Your task to perform on an android device: install app "Indeed Job Search" Image 0: 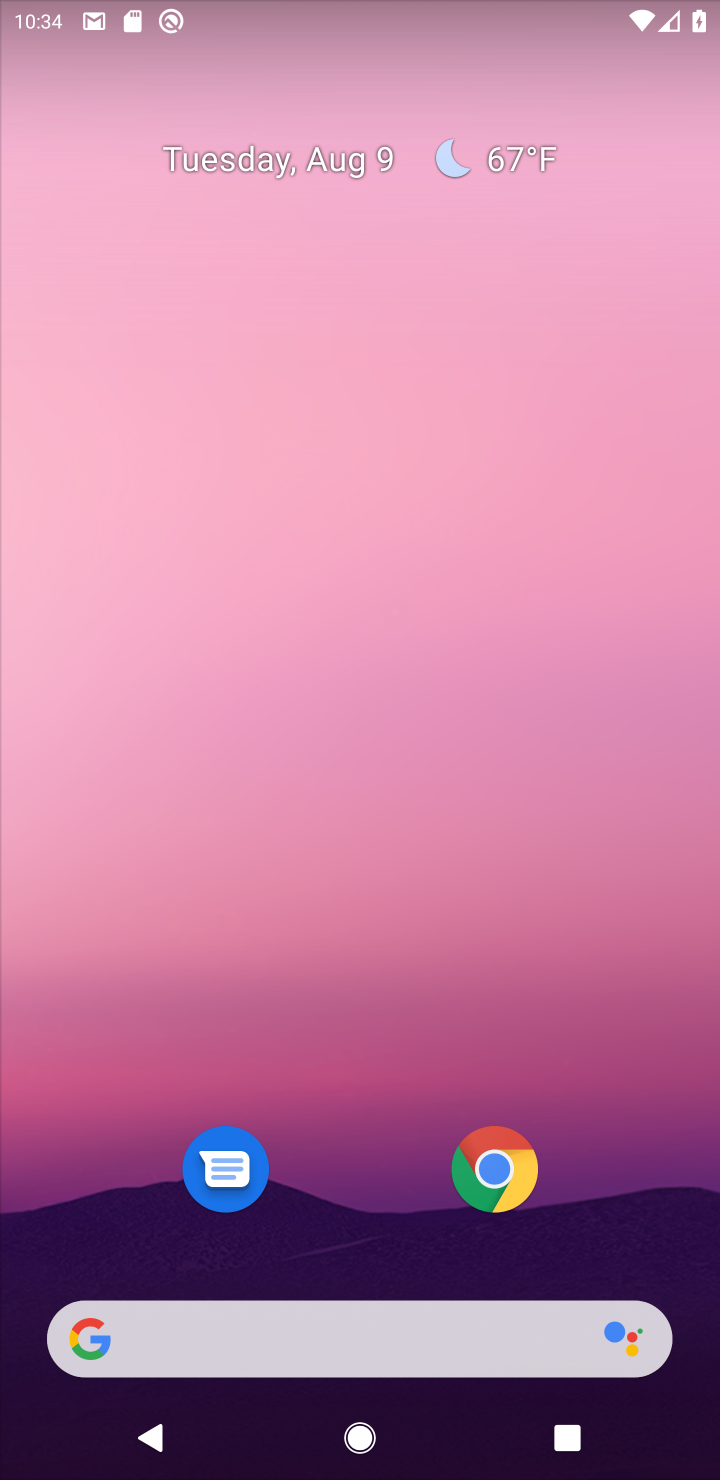
Step 0: press home button
Your task to perform on an android device: install app "Indeed Job Search" Image 1: 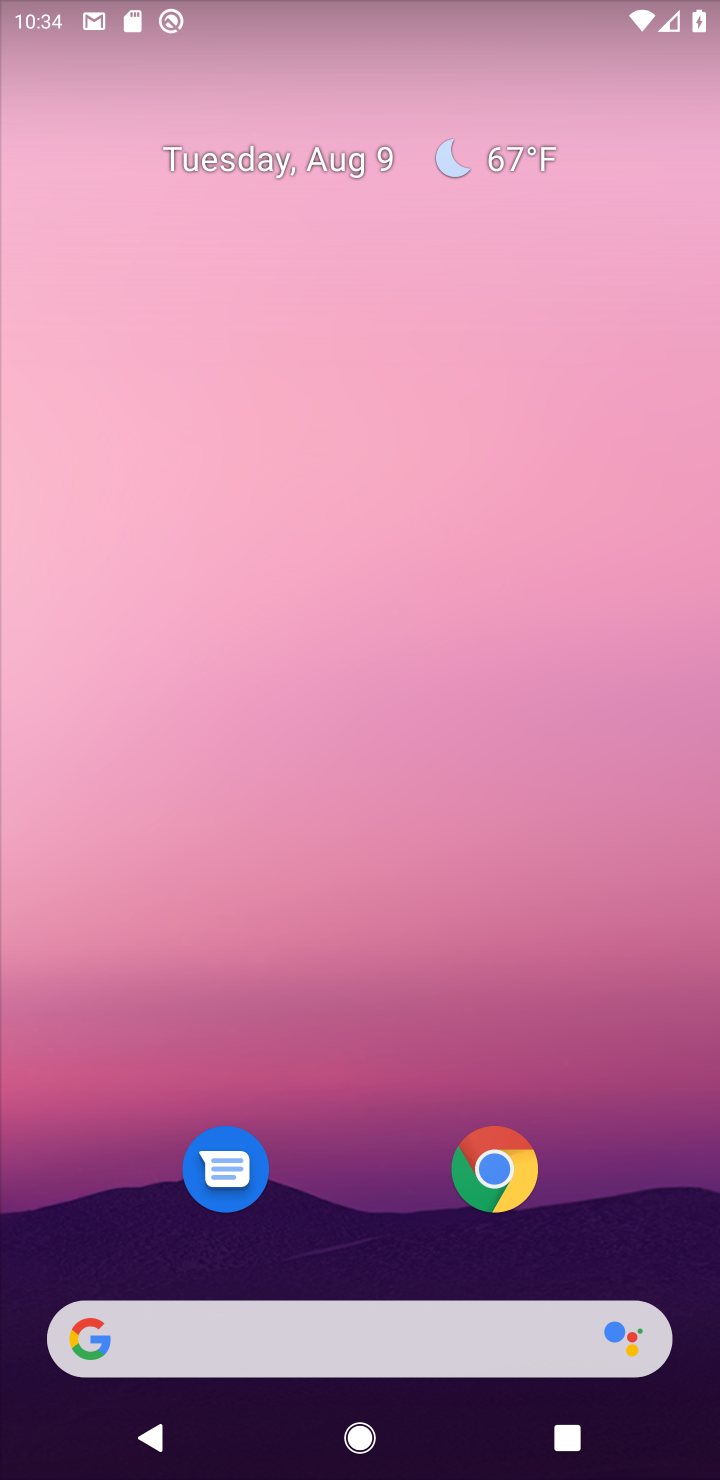
Step 1: drag from (649, 1048) to (669, 88)
Your task to perform on an android device: install app "Indeed Job Search" Image 2: 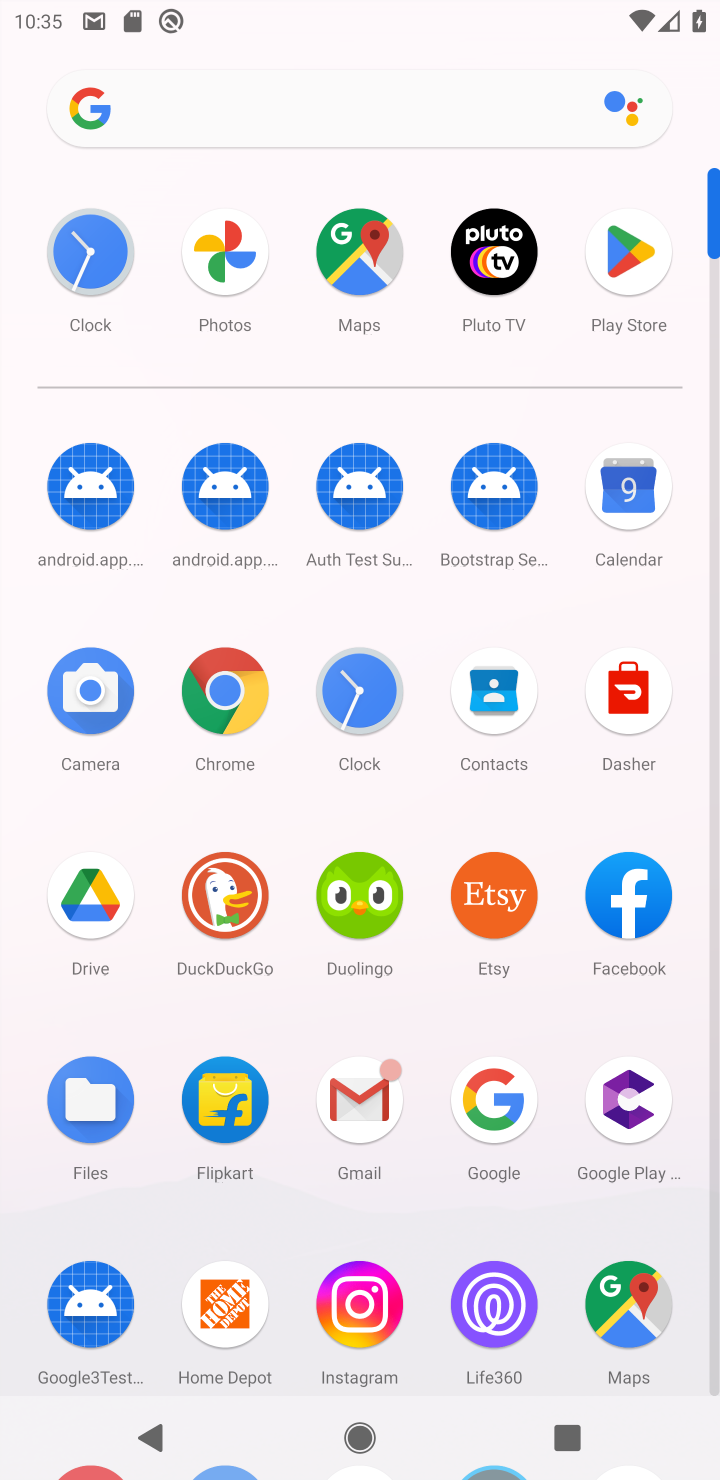
Step 2: click (632, 252)
Your task to perform on an android device: install app "Indeed Job Search" Image 3: 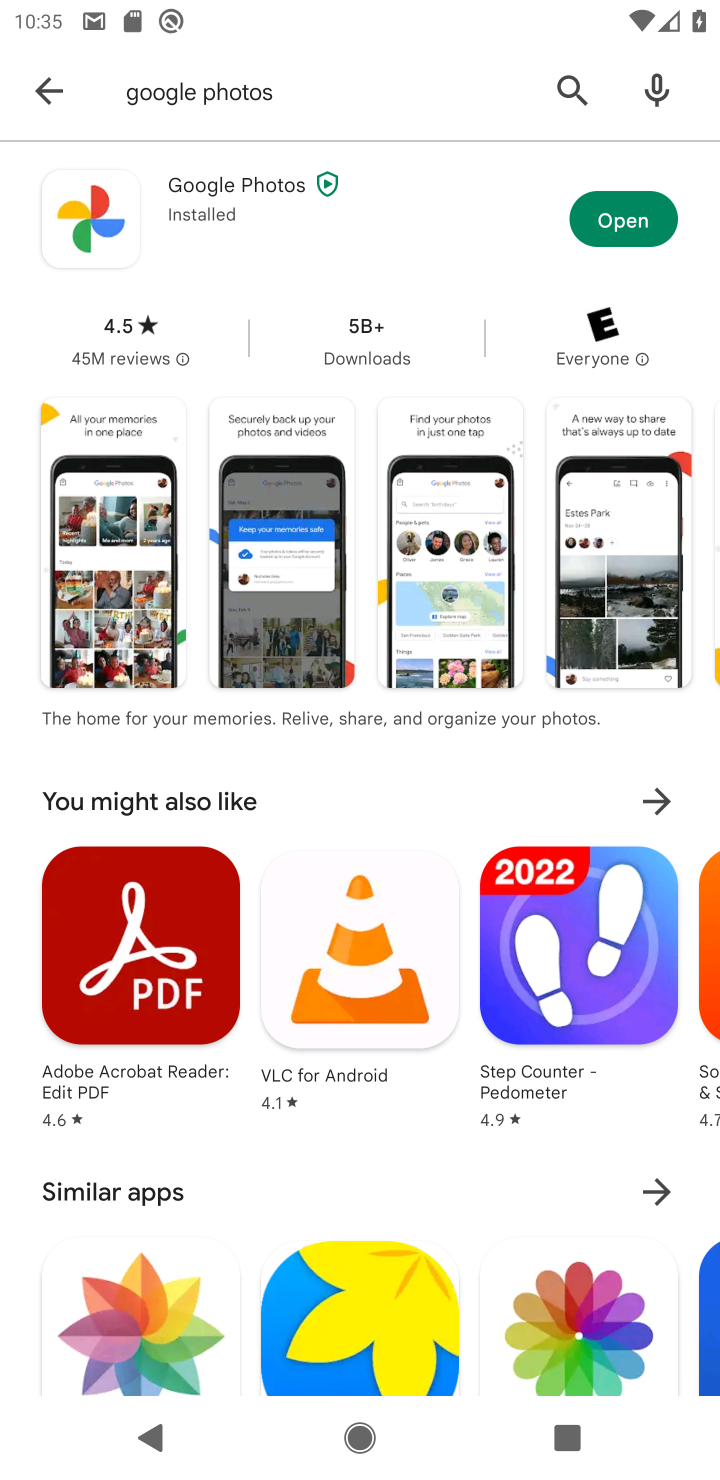
Step 3: click (576, 78)
Your task to perform on an android device: install app "Indeed Job Search" Image 4: 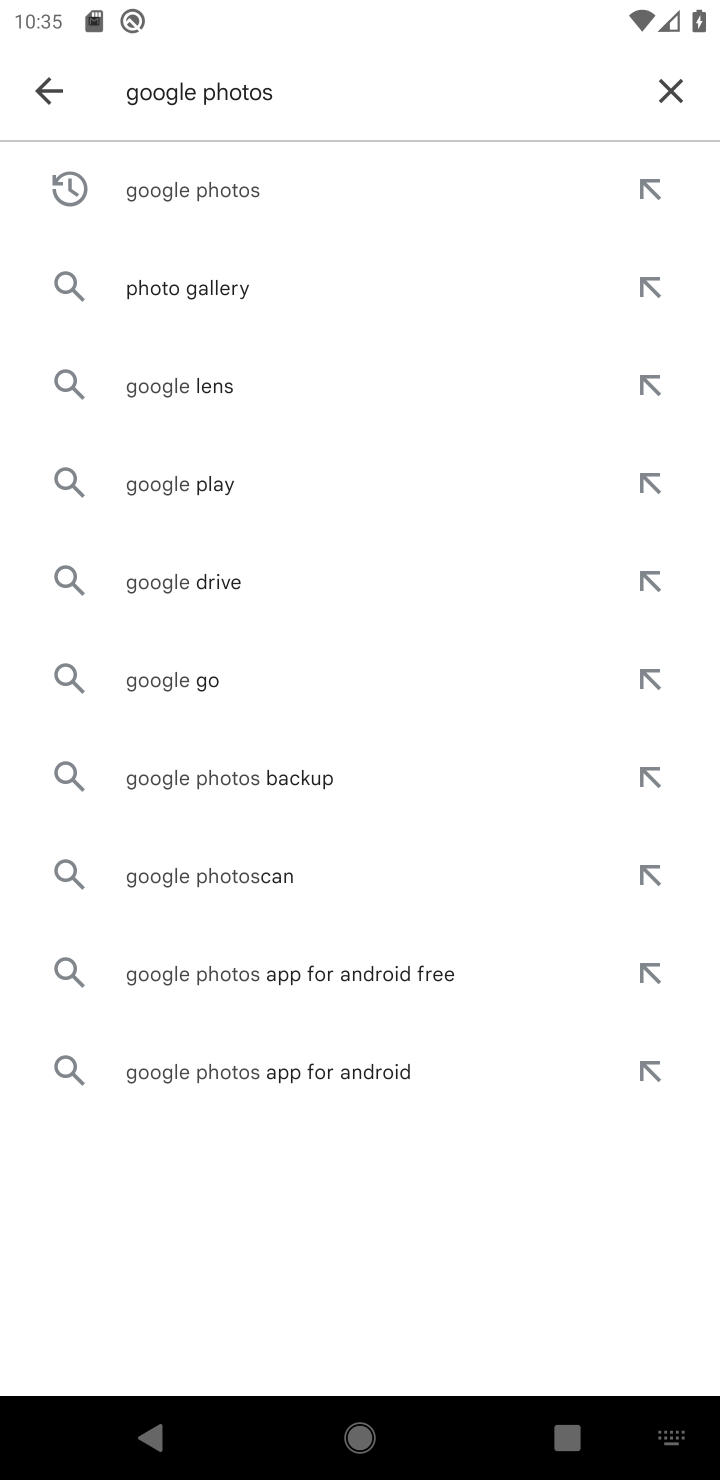
Step 4: click (674, 76)
Your task to perform on an android device: install app "Indeed Job Search" Image 5: 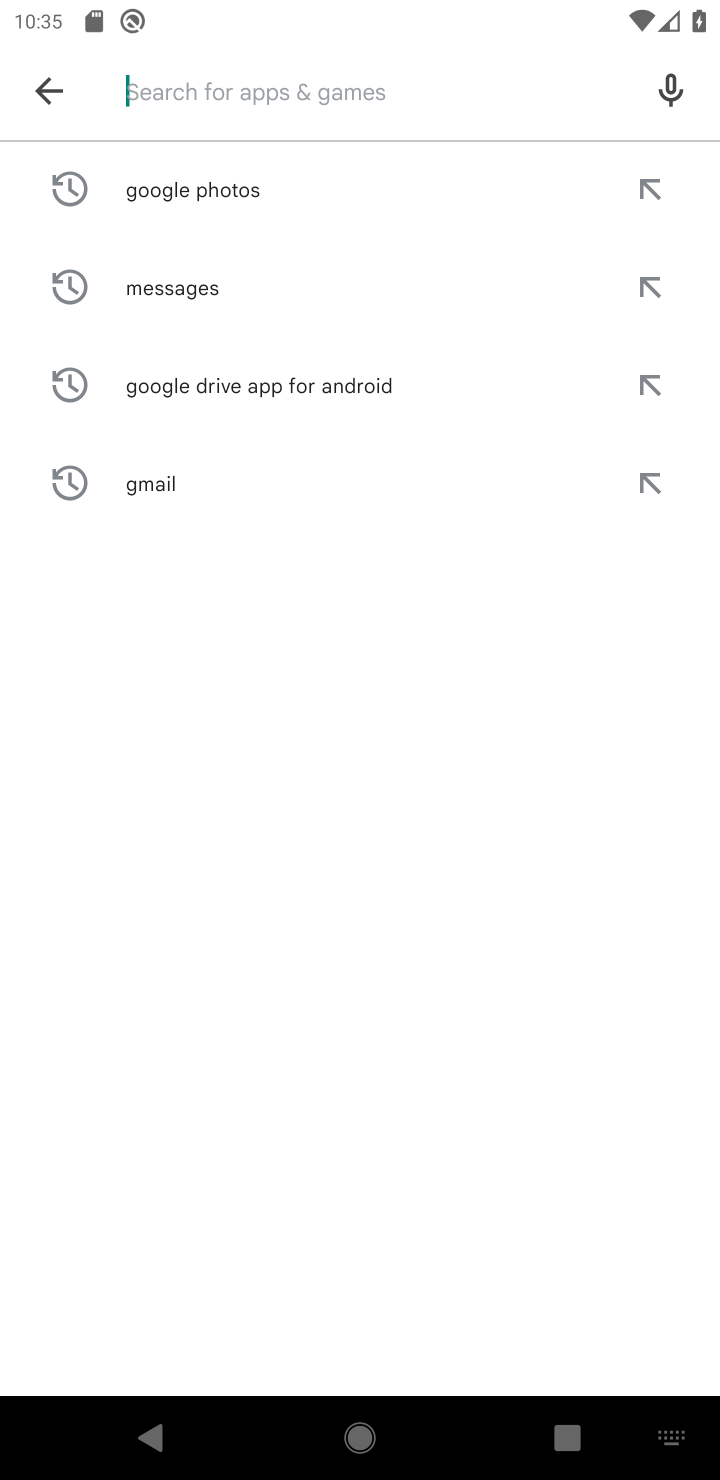
Step 5: type "indeed job search "
Your task to perform on an android device: install app "Indeed Job Search" Image 6: 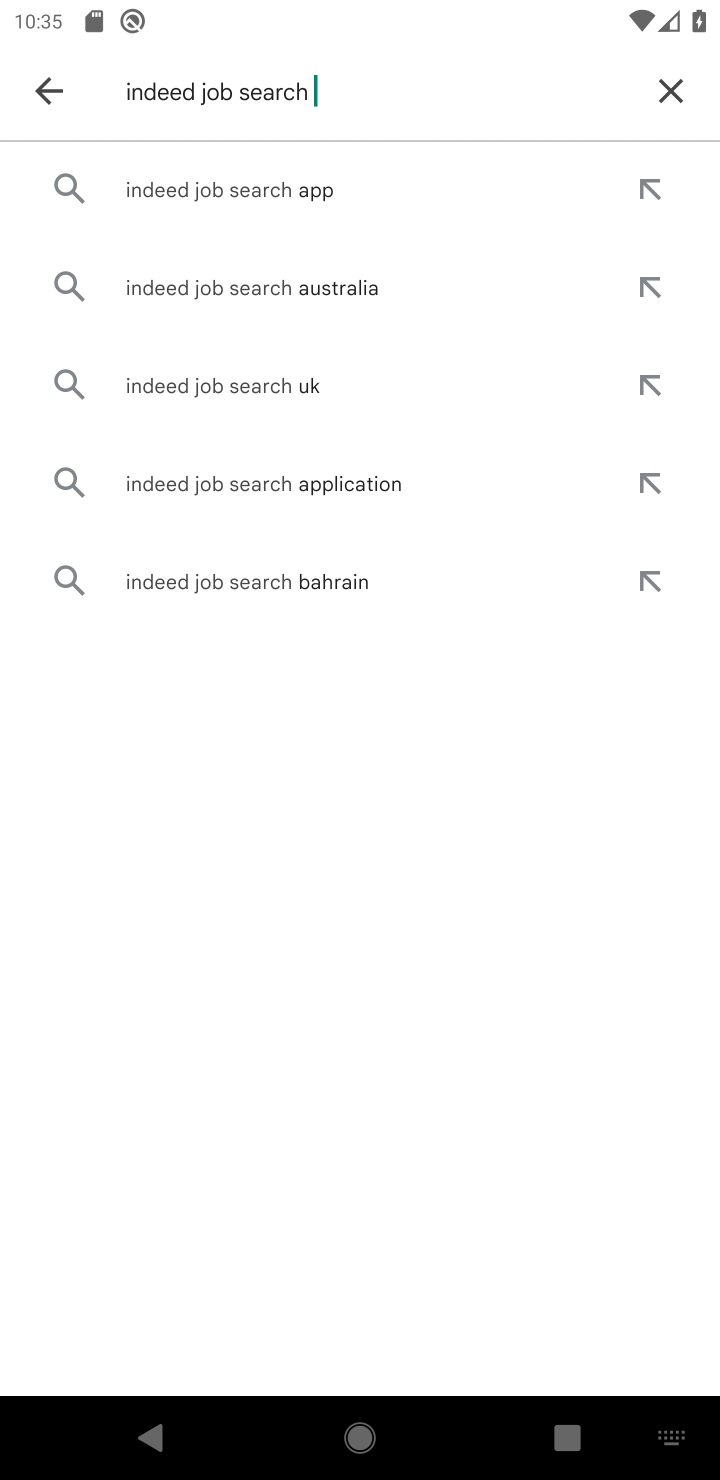
Step 6: click (303, 183)
Your task to perform on an android device: install app "Indeed Job Search" Image 7: 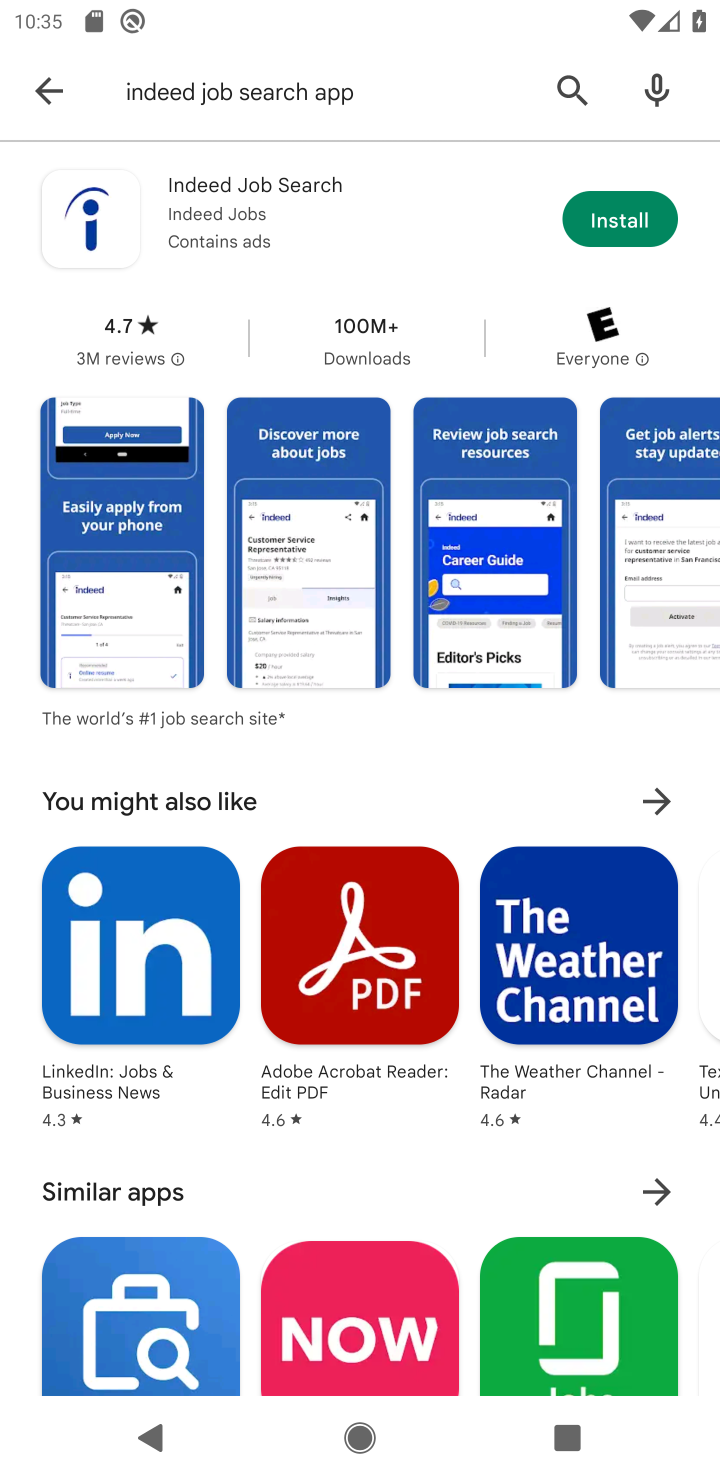
Step 7: click (634, 207)
Your task to perform on an android device: install app "Indeed Job Search" Image 8: 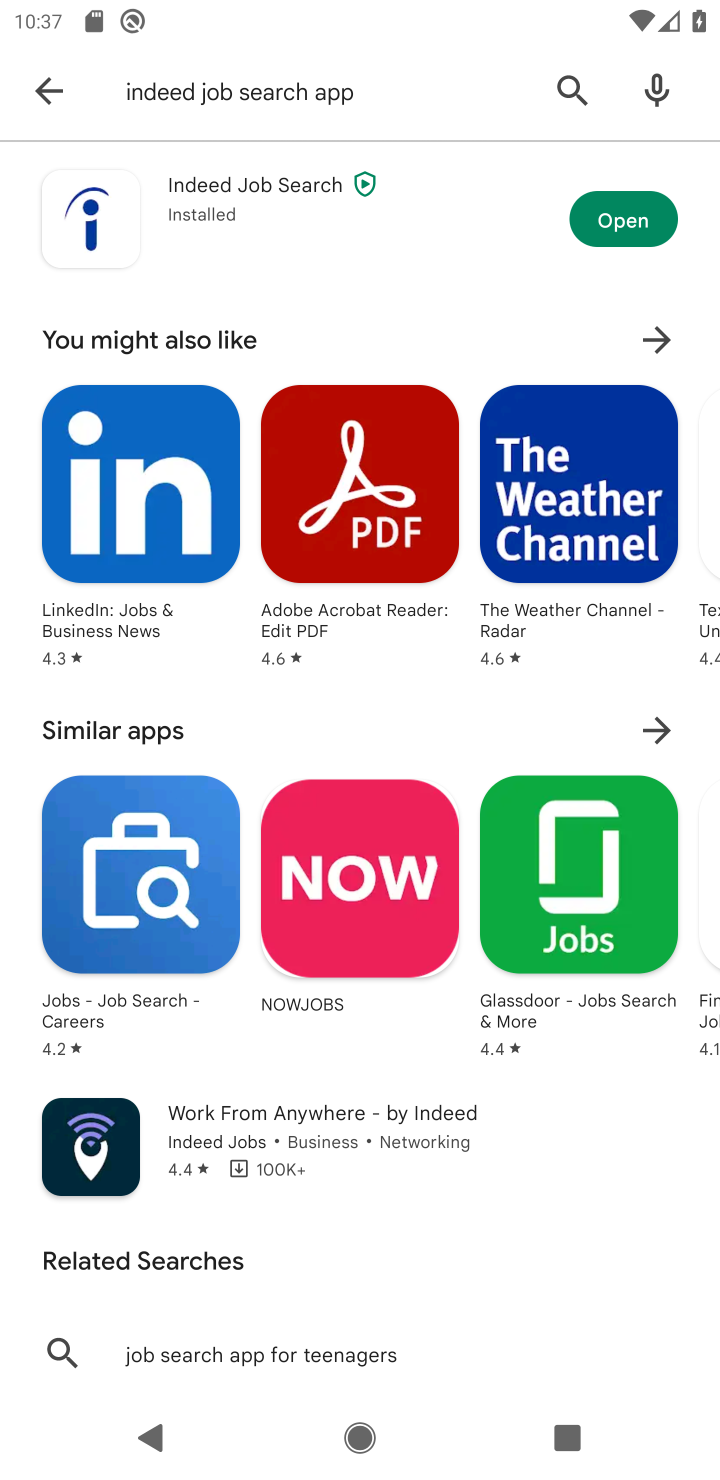
Step 8: task complete